Your task to perform on an android device: When is my next appointment? Image 0: 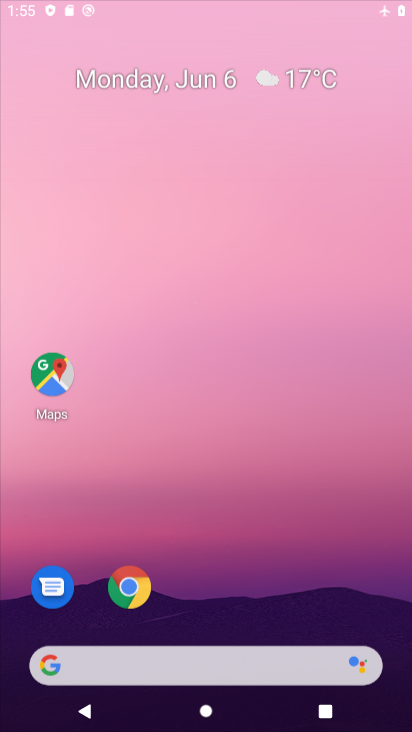
Step 0: click (127, 572)
Your task to perform on an android device: When is my next appointment? Image 1: 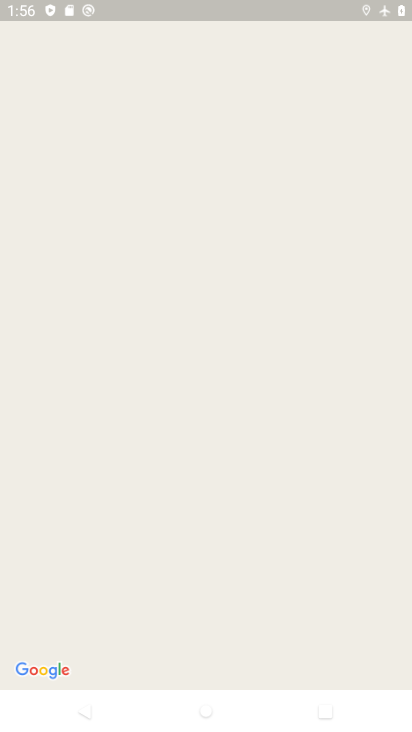
Step 1: press home button
Your task to perform on an android device: When is my next appointment? Image 2: 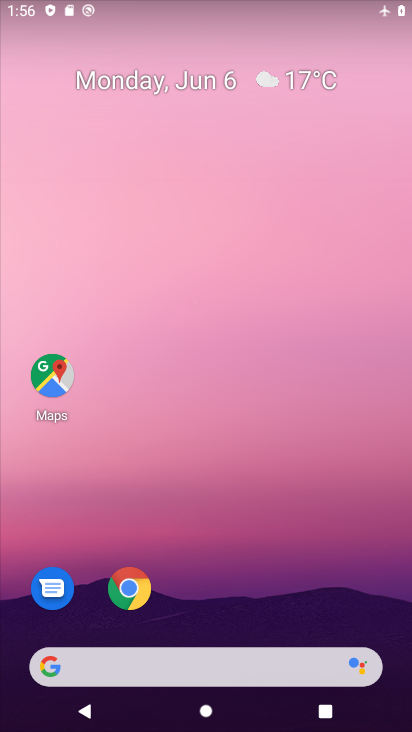
Step 2: drag from (170, 509) to (126, 213)
Your task to perform on an android device: When is my next appointment? Image 3: 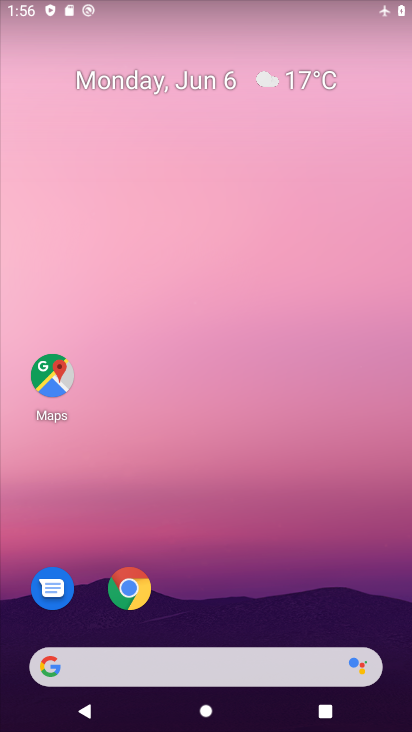
Step 3: drag from (203, 652) to (144, 71)
Your task to perform on an android device: When is my next appointment? Image 4: 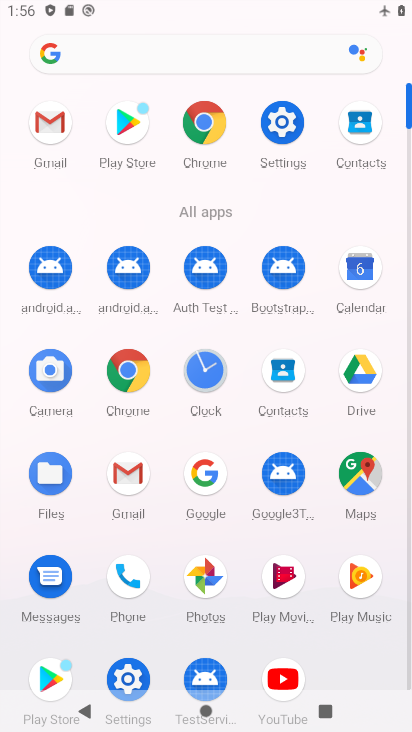
Step 4: click (358, 275)
Your task to perform on an android device: When is my next appointment? Image 5: 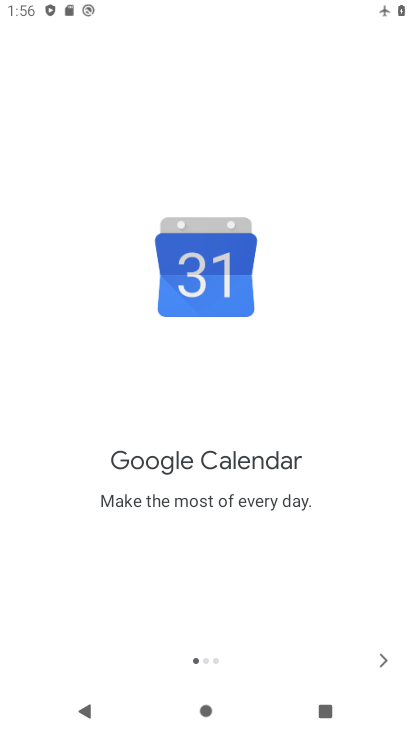
Step 5: click (383, 658)
Your task to perform on an android device: When is my next appointment? Image 6: 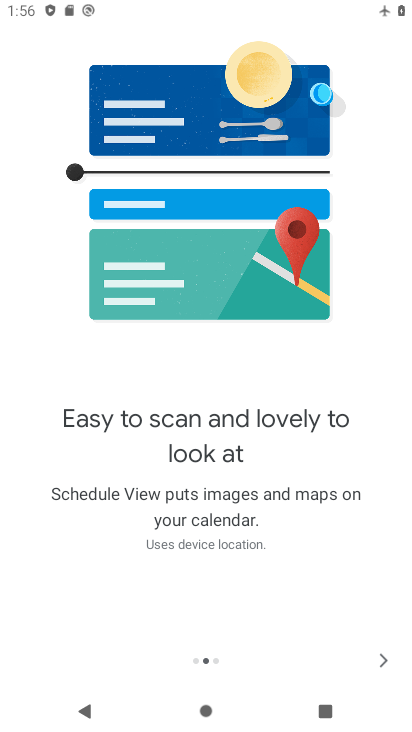
Step 6: click (383, 658)
Your task to perform on an android device: When is my next appointment? Image 7: 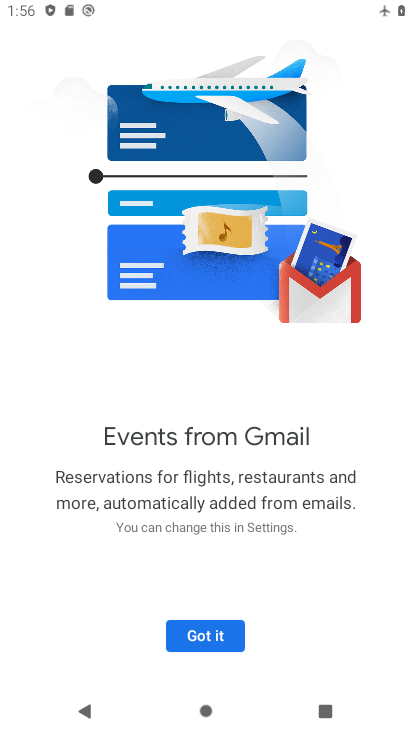
Step 7: click (203, 633)
Your task to perform on an android device: When is my next appointment? Image 8: 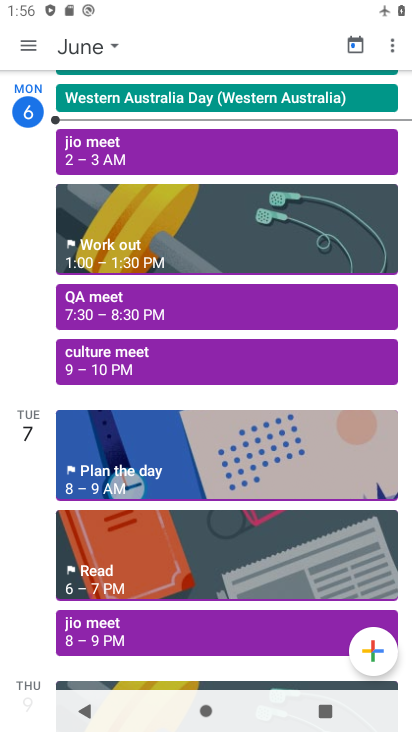
Step 8: click (23, 51)
Your task to perform on an android device: When is my next appointment? Image 9: 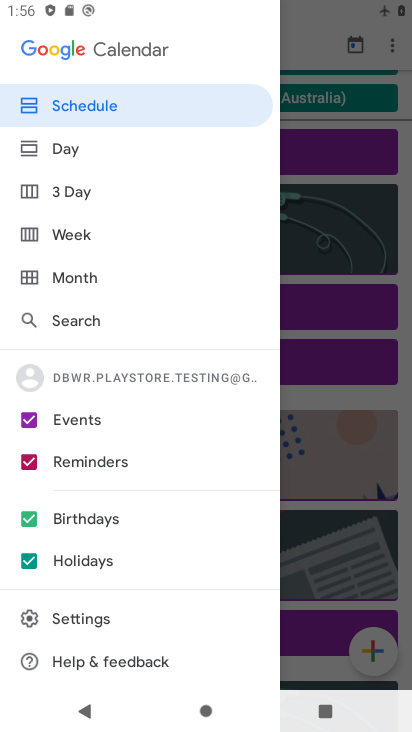
Step 9: click (103, 109)
Your task to perform on an android device: When is my next appointment? Image 10: 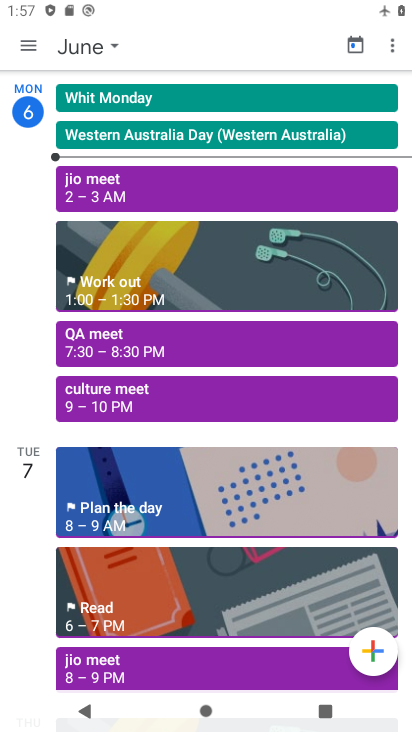
Step 10: task complete